Your task to perform on an android device: turn off location Image 0: 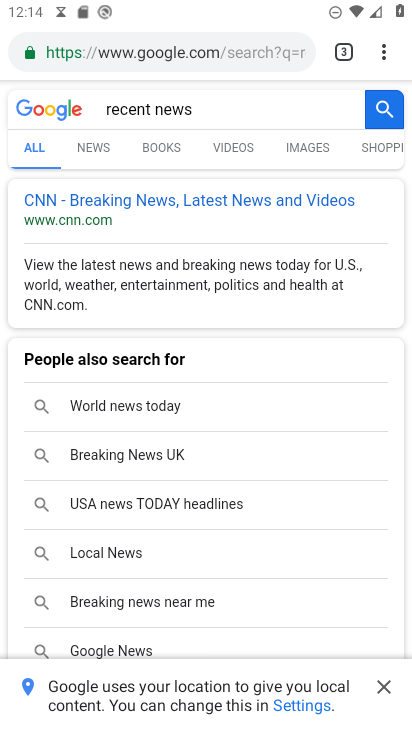
Step 0: press home button
Your task to perform on an android device: turn off location Image 1: 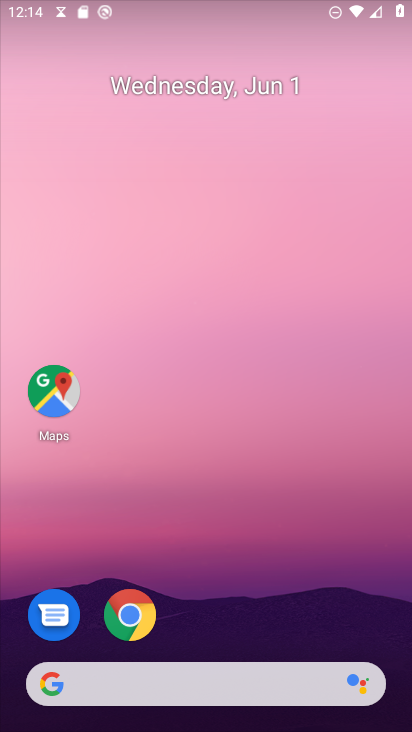
Step 1: drag from (407, 621) to (410, 687)
Your task to perform on an android device: turn off location Image 2: 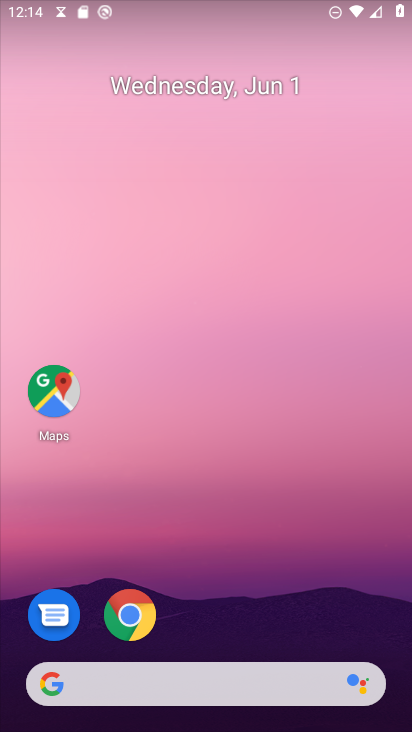
Step 2: drag from (308, 667) to (284, 16)
Your task to perform on an android device: turn off location Image 3: 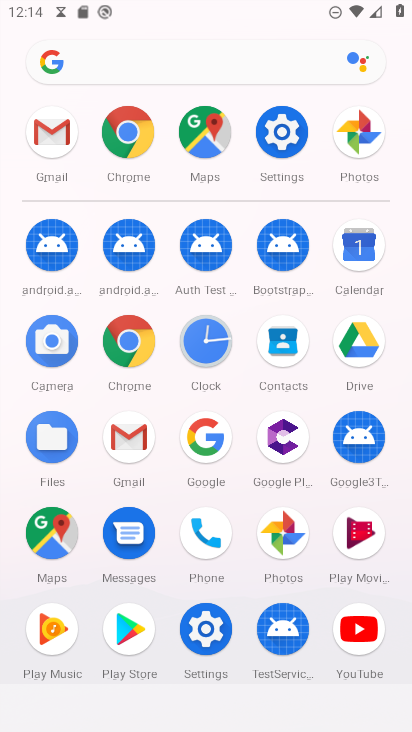
Step 3: click (289, 136)
Your task to perform on an android device: turn off location Image 4: 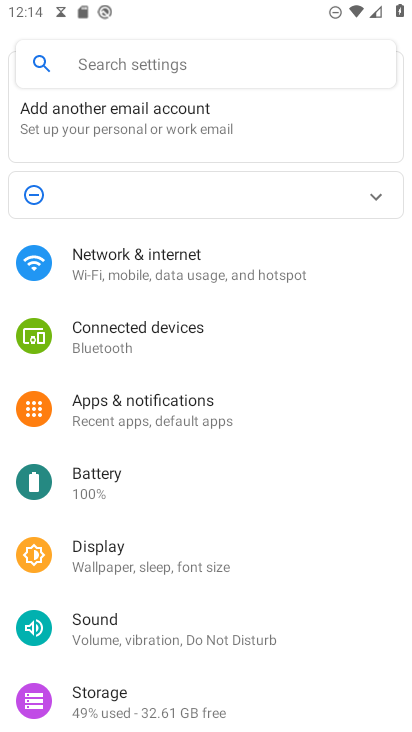
Step 4: drag from (146, 672) to (216, 308)
Your task to perform on an android device: turn off location Image 5: 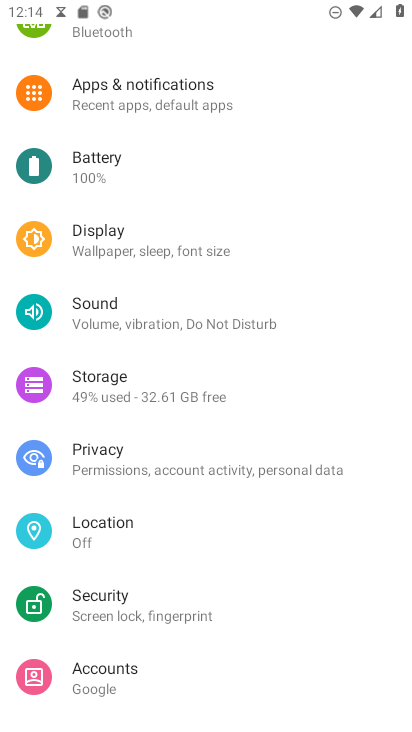
Step 5: click (168, 546)
Your task to perform on an android device: turn off location Image 6: 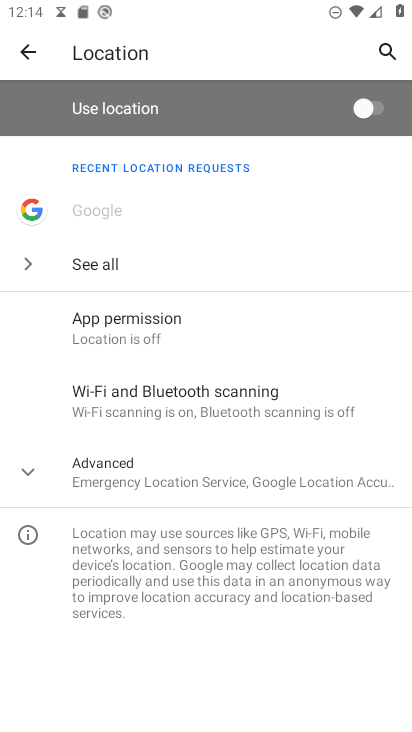
Step 6: task complete